Your task to perform on an android device: toggle pop-ups in chrome Image 0: 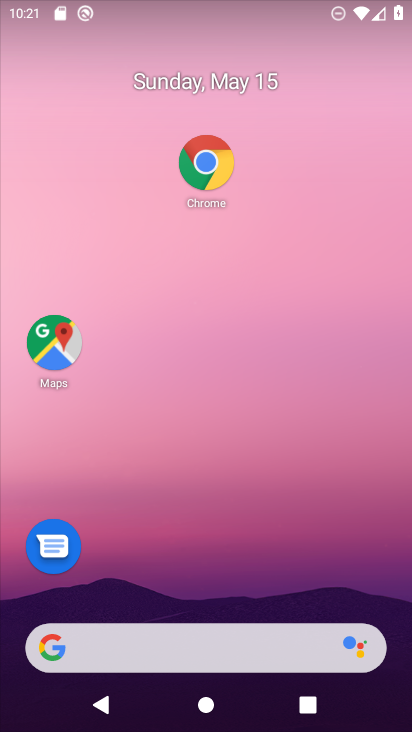
Step 0: drag from (266, 592) to (336, 281)
Your task to perform on an android device: toggle pop-ups in chrome Image 1: 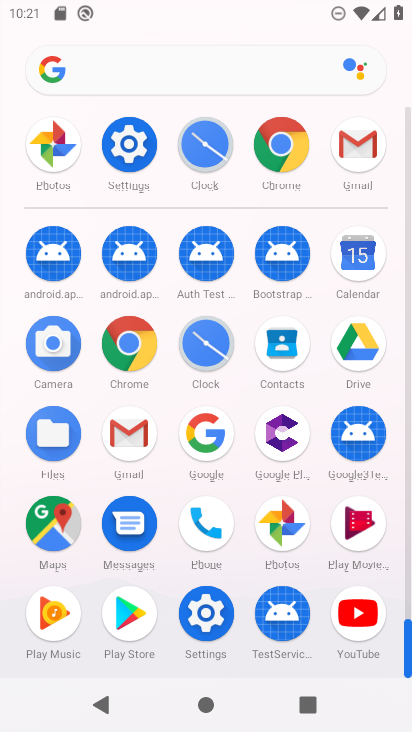
Step 1: click (280, 133)
Your task to perform on an android device: toggle pop-ups in chrome Image 2: 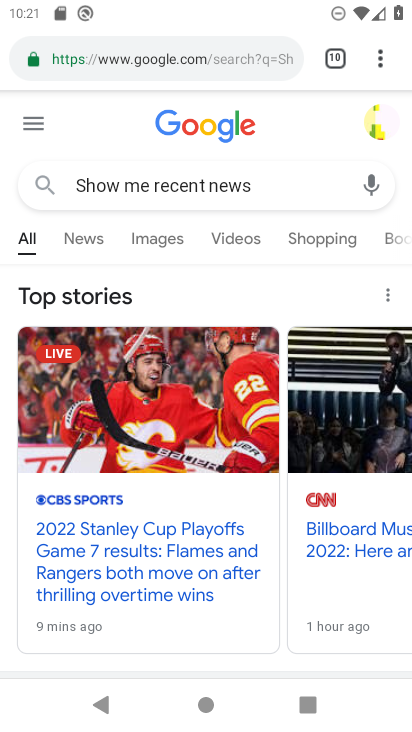
Step 2: click (373, 55)
Your task to perform on an android device: toggle pop-ups in chrome Image 3: 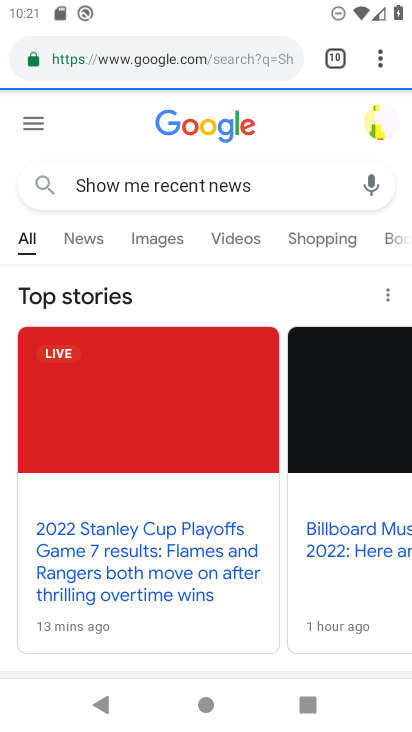
Step 3: click (375, 52)
Your task to perform on an android device: toggle pop-ups in chrome Image 4: 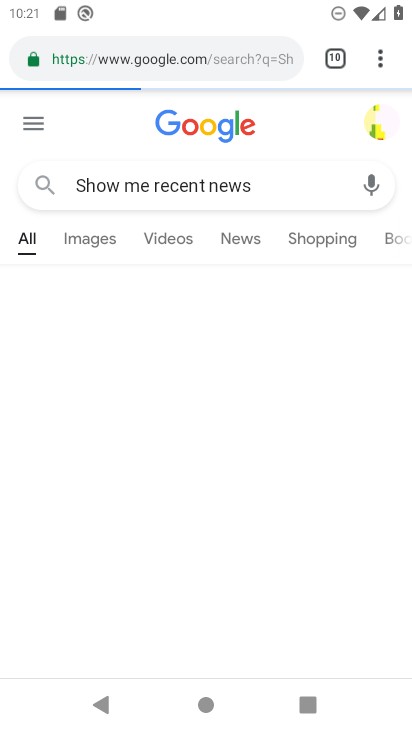
Step 4: click (401, 47)
Your task to perform on an android device: toggle pop-ups in chrome Image 5: 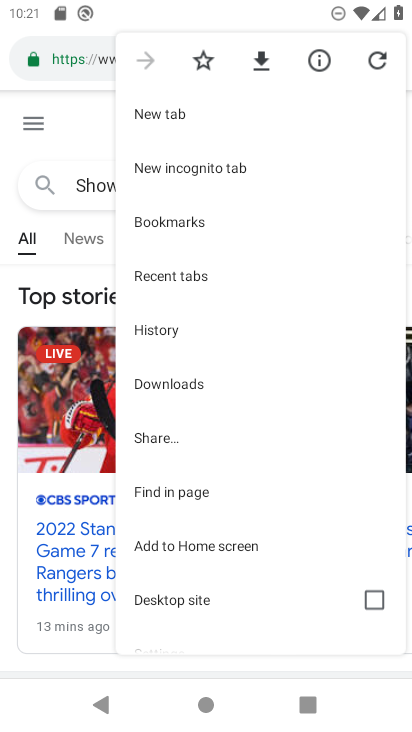
Step 5: drag from (228, 560) to (298, 236)
Your task to perform on an android device: toggle pop-ups in chrome Image 6: 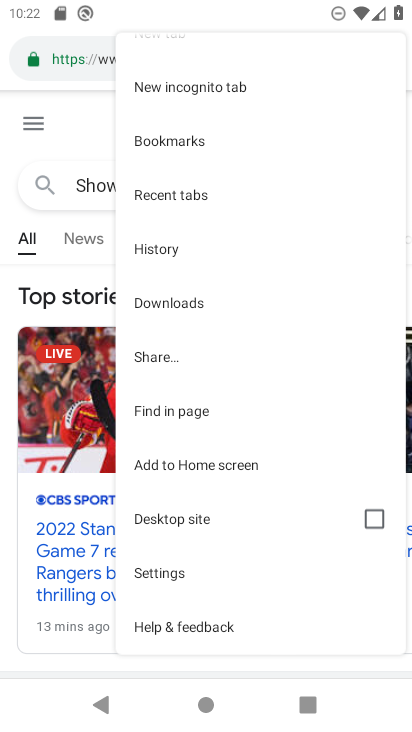
Step 6: click (183, 577)
Your task to perform on an android device: toggle pop-ups in chrome Image 7: 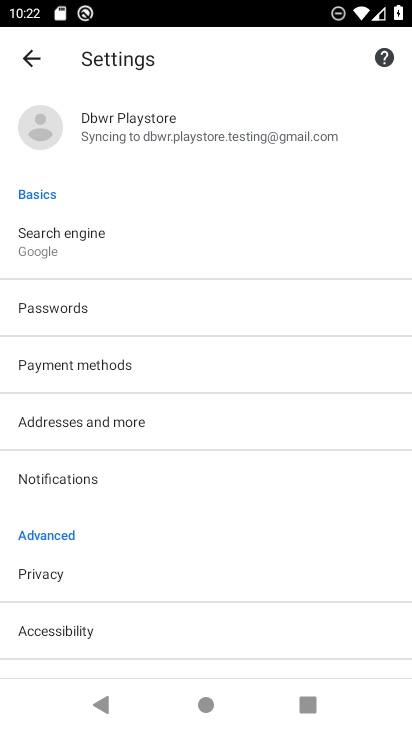
Step 7: drag from (146, 611) to (266, 211)
Your task to perform on an android device: toggle pop-ups in chrome Image 8: 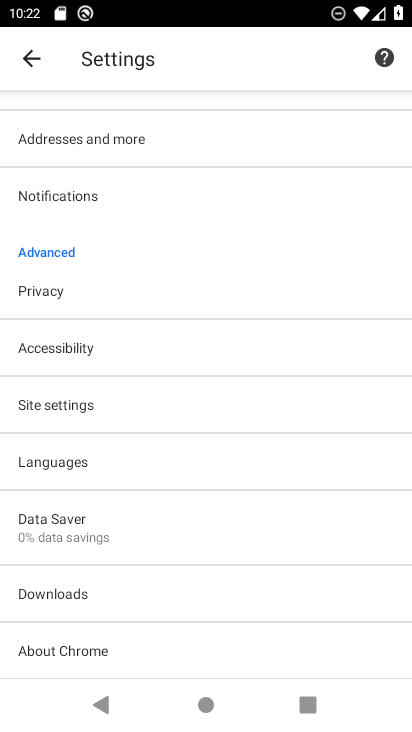
Step 8: click (88, 400)
Your task to perform on an android device: toggle pop-ups in chrome Image 9: 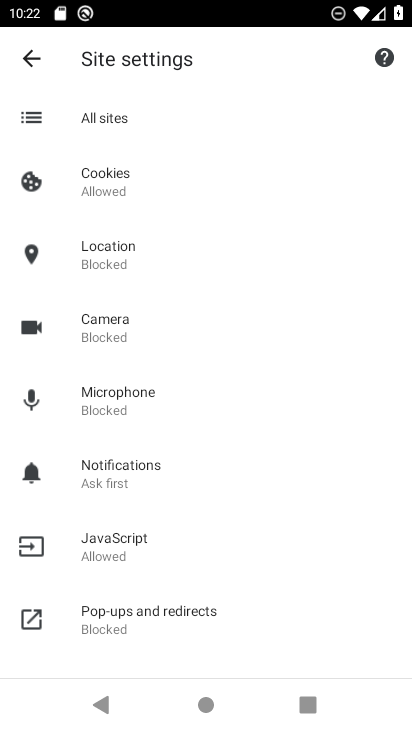
Step 9: click (170, 615)
Your task to perform on an android device: toggle pop-ups in chrome Image 10: 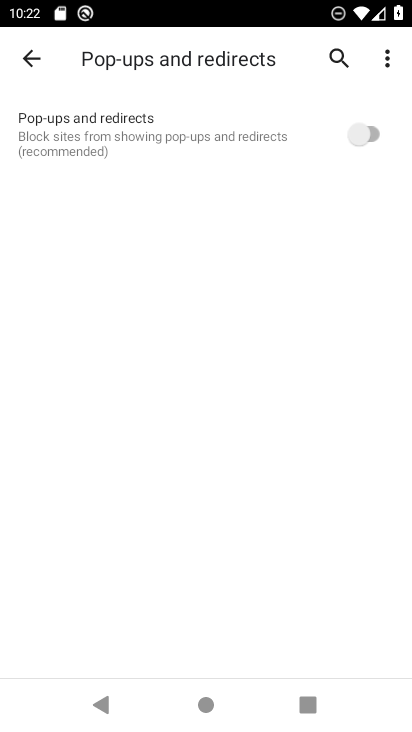
Step 10: click (364, 131)
Your task to perform on an android device: toggle pop-ups in chrome Image 11: 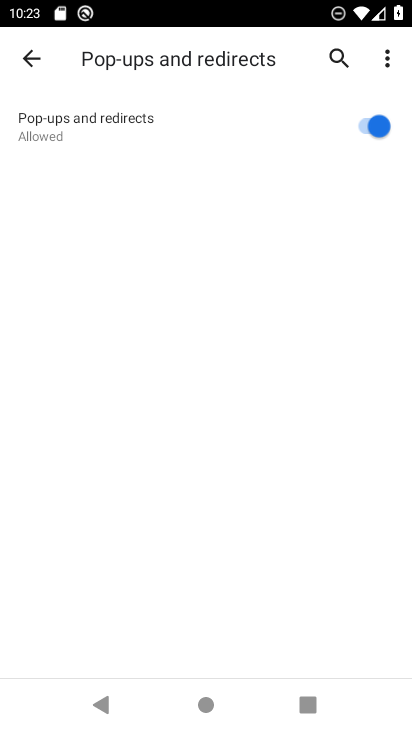
Step 11: task complete